Your task to perform on an android device: turn on location history Image 0: 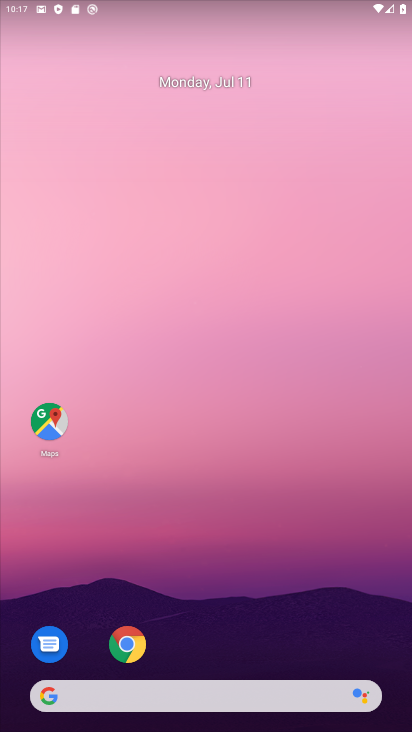
Step 0: drag from (267, 524) to (261, 174)
Your task to perform on an android device: turn on location history Image 1: 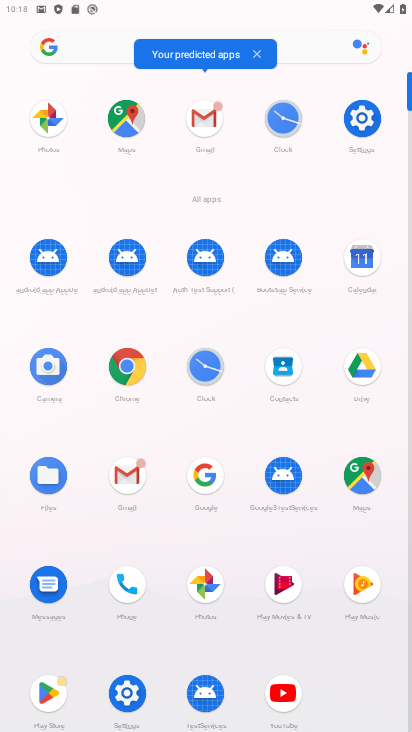
Step 1: click (358, 128)
Your task to perform on an android device: turn on location history Image 2: 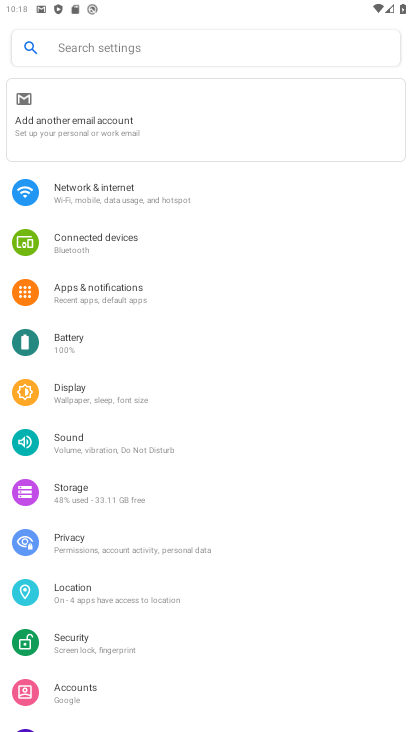
Step 2: click (99, 585)
Your task to perform on an android device: turn on location history Image 3: 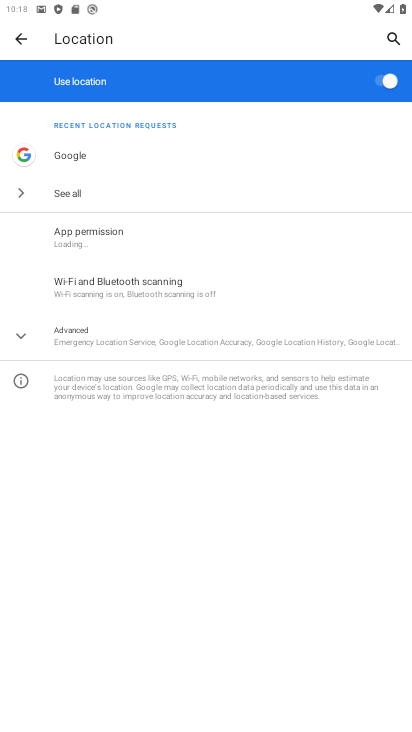
Step 3: click (171, 324)
Your task to perform on an android device: turn on location history Image 4: 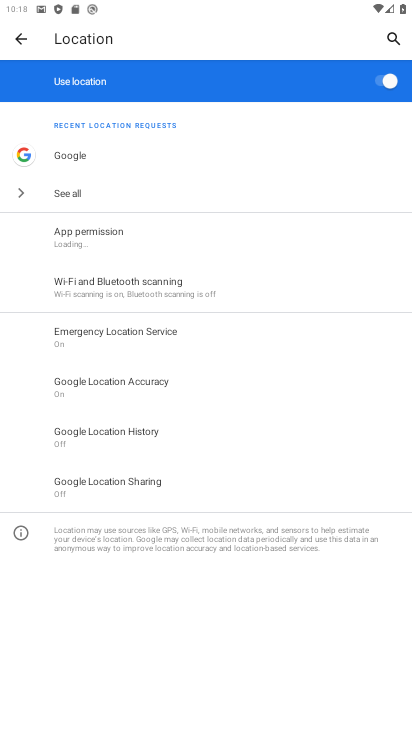
Step 4: click (162, 422)
Your task to perform on an android device: turn on location history Image 5: 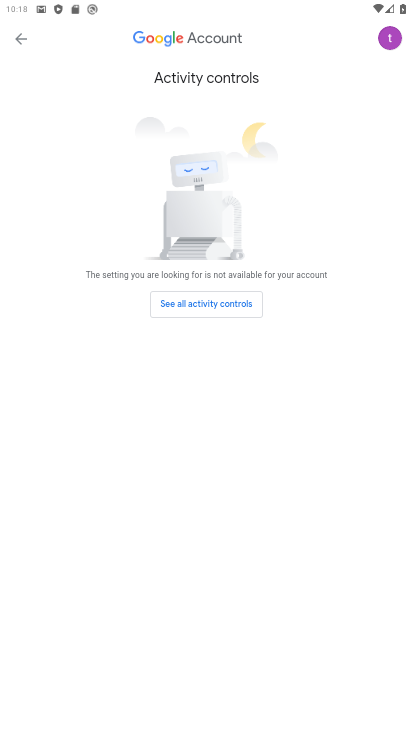
Step 5: click (29, 31)
Your task to perform on an android device: turn on location history Image 6: 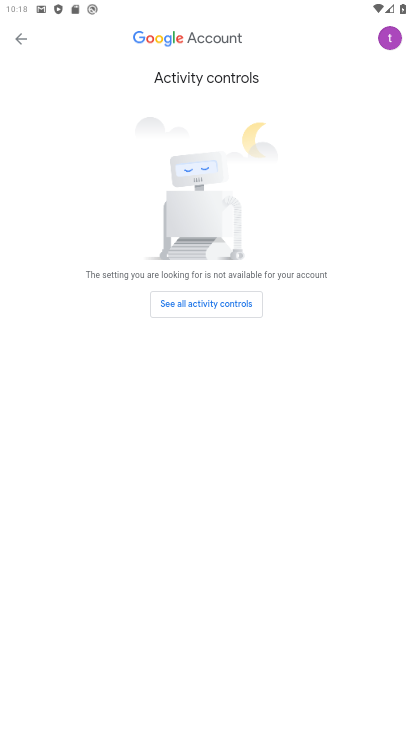
Step 6: click (216, 296)
Your task to perform on an android device: turn on location history Image 7: 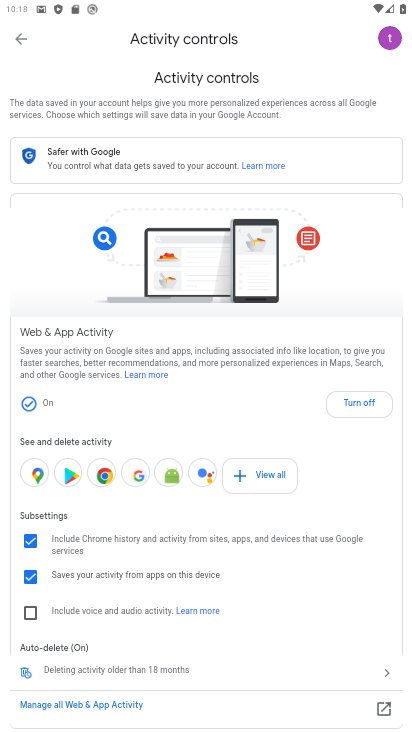
Step 7: task complete